Your task to perform on an android device: Open Google Maps Image 0: 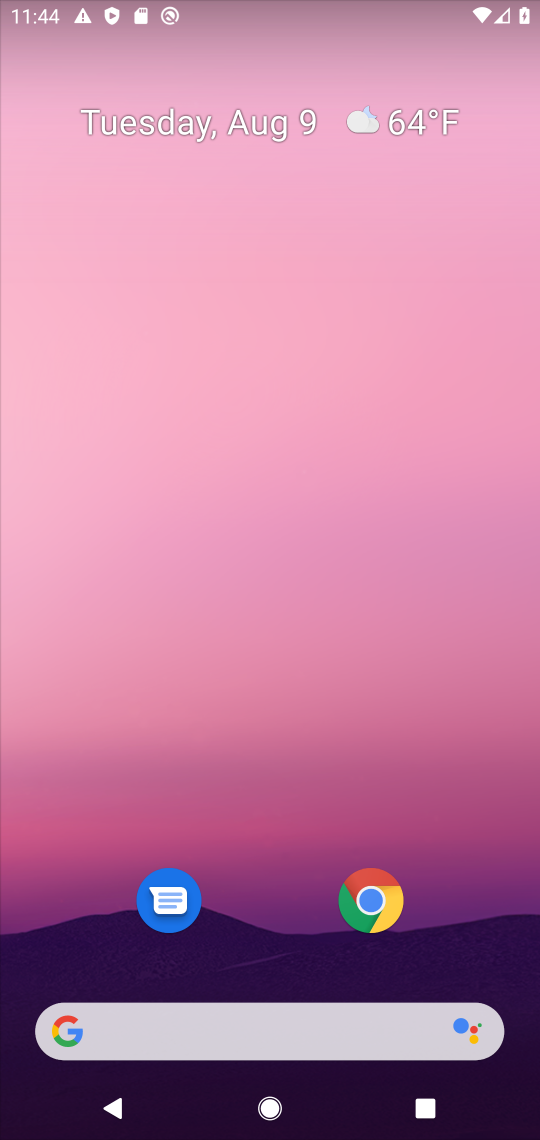
Step 0: drag from (246, 757) to (273, 106)
Your task to perform on an android device: Open Google Maps Image 1: 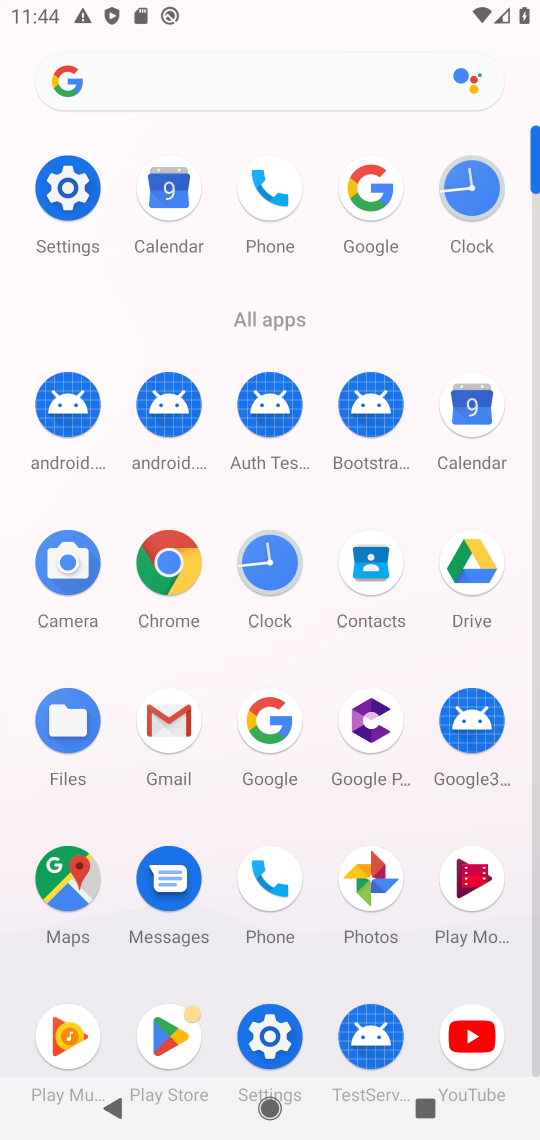
Step 1: click (61, 886)
Your task to perform on an android device: Open Google Maps Image 2: 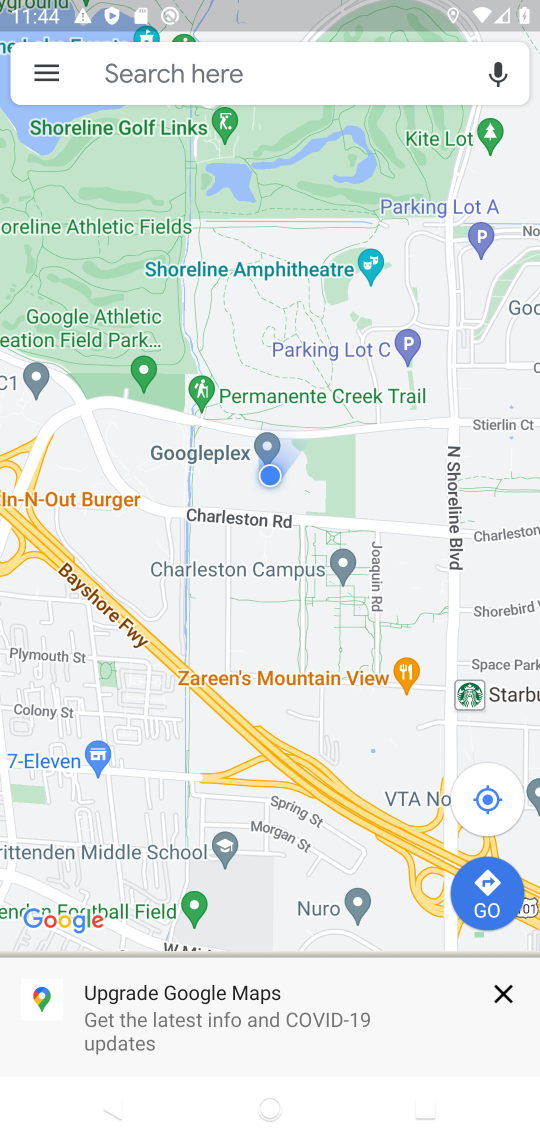
Step 2: task complete